Your task to perform on an android device: find snoozed emails in the gmail app Image 0: 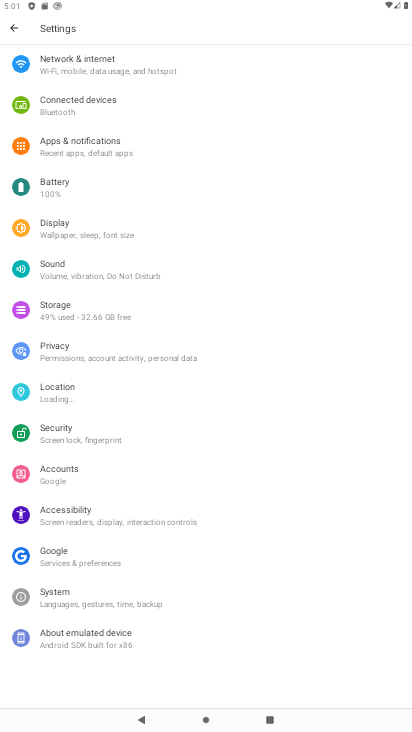
Step 0: press back button
Your task to perform on an android device: find snoozed emails in the gmail app Image 1: 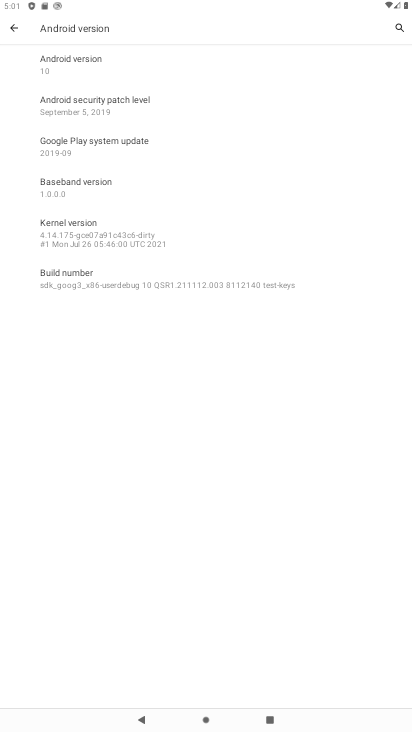
Step 1: press back button
Your task to perform on an android device: find snoozed emails in the gmail app Image 2: 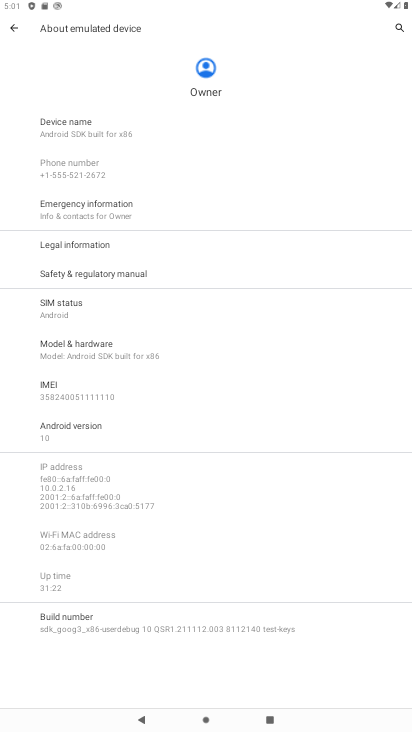
Step 2: press back button
Your task to perform on an android device: find snoozed emails in the gmail app Image 3: 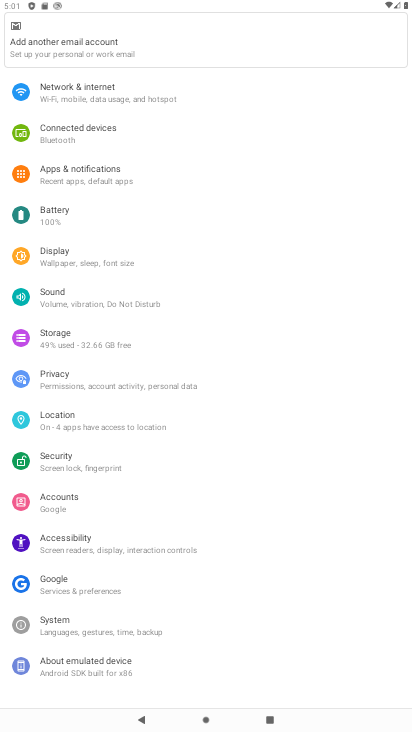
Step 3: press home button
Your task to perform on an android device: find snoozed emails in the gmail app Image 4: 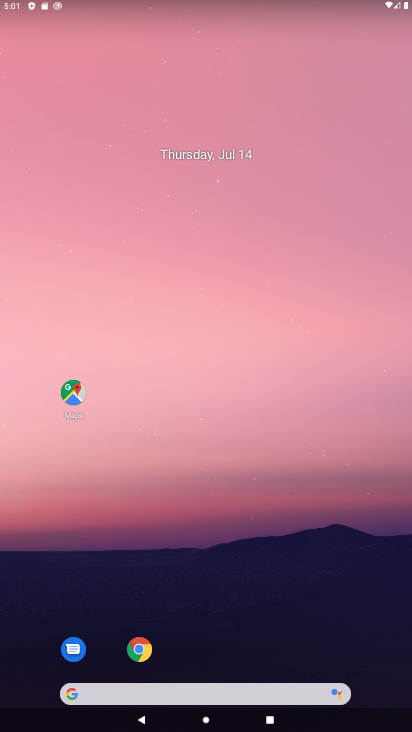
Step 4: drag from (205, 648) to (256, 115)
Your task to perform on an android device: find snoozed emails in the gmail app Image 5: 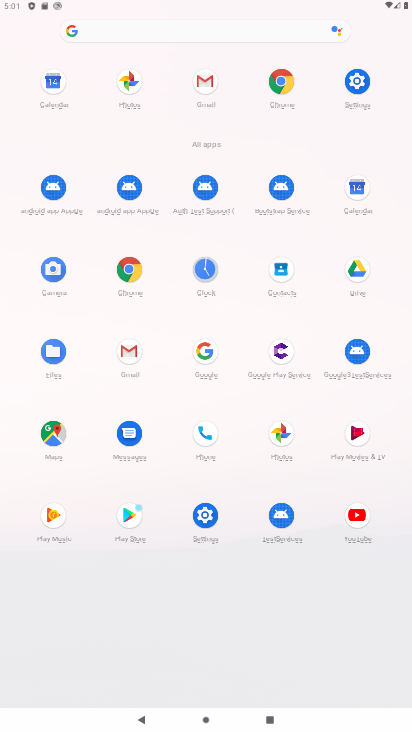
Step 5: click (204, 96)
Your task to perform on an android device: find snoozed emails in the gmail app Image 6: 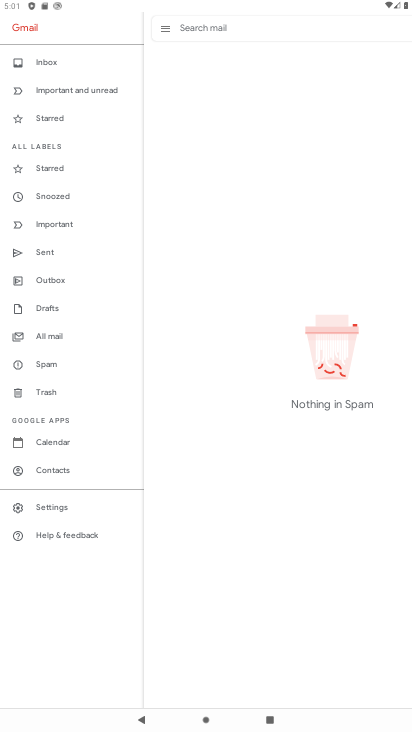
Step 6: click (51, 198)
Your task to perform on an android device: find snoozed emails in the gmail app Image 7: 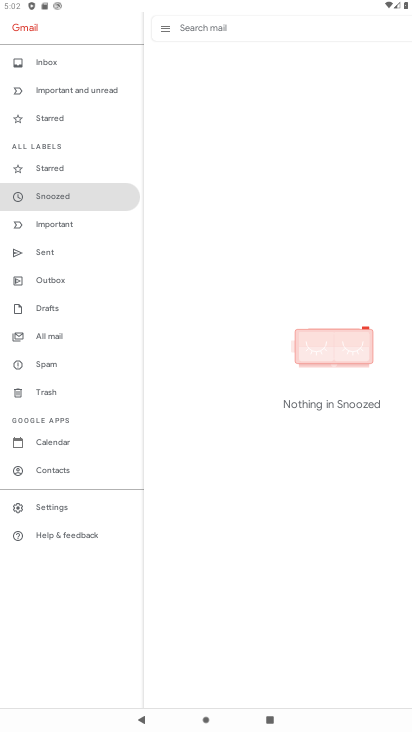
Step 7: task complete